Your task to perform on an android device: turn on showing notifications on the lock screen Image 0: 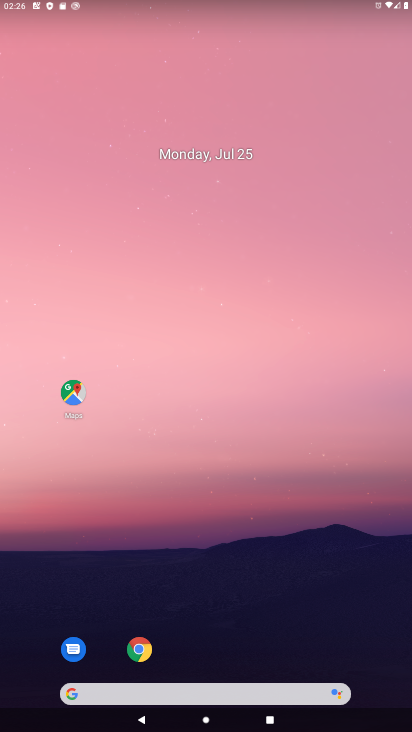
Step 0: drag from (390, 658) to (298, 133)
Your task to perform on an android device: turn on showing notifications on the lock screen Image 1: 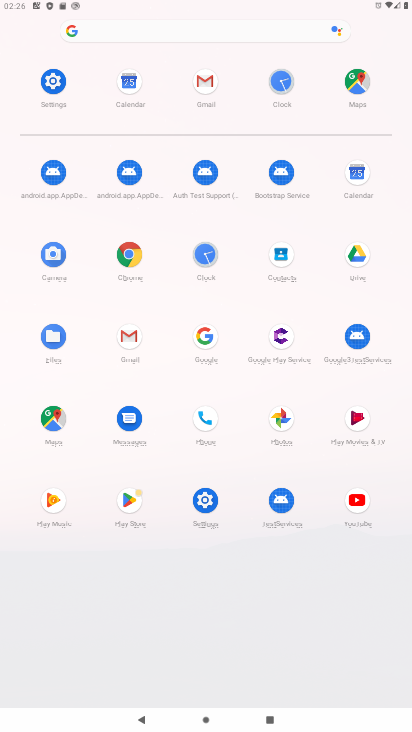
Step 1: click (206, 502)
Your task to perform on an android device: turn on showing notifications on the lock screen Image 2: 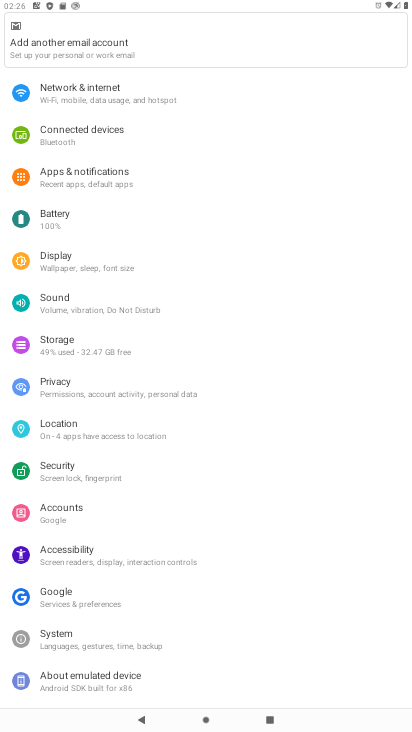
Step 2: click (84, 169)
Your task to perform on an android device: turn on showing notifications on the lock screen Image 3: 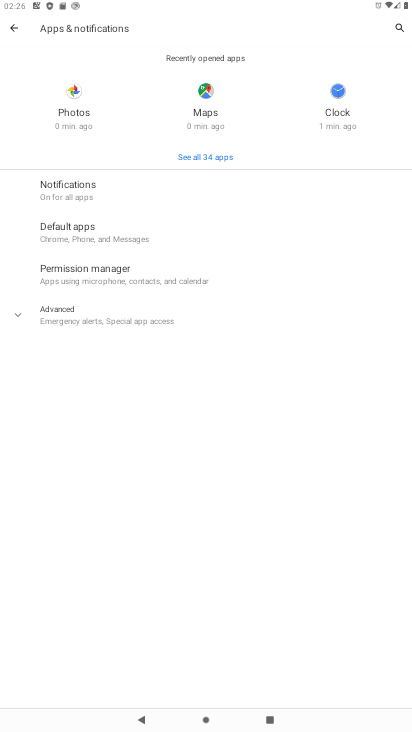
Step 3: click (70, 183)
Your task to perform on an android device: turn on showing notifications on the lock screen Image 4: 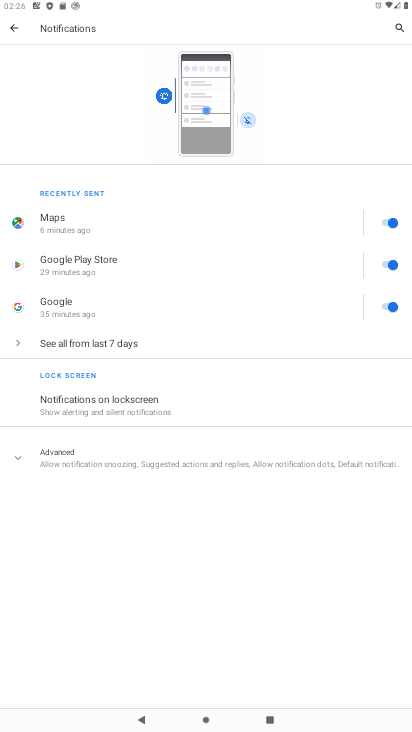
Step 4: click (14, 453)
Your task to perform on an android device: turn on showing notifications on the lock screen Image 5: 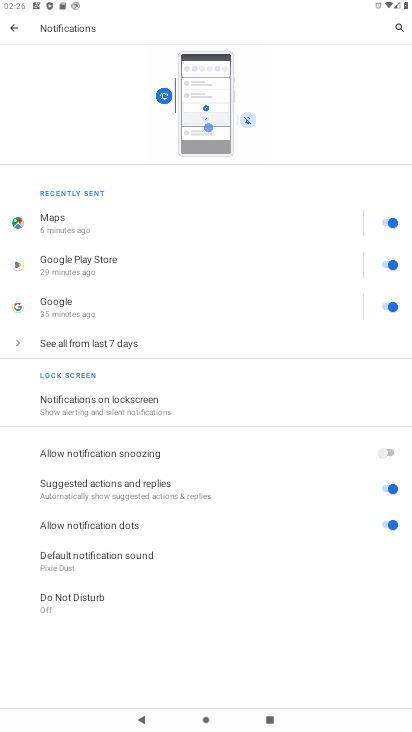
Step 5: click (83, 403)
Your task to perform on an android device: turn on showing notifications on the lock screen Image 6: 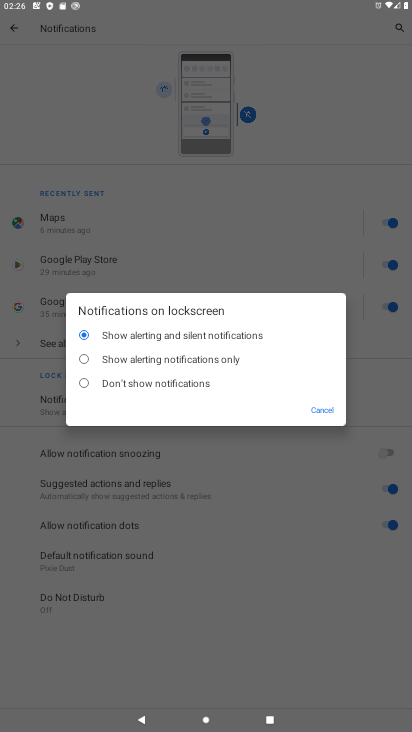
Step 6: task complete